Your task to perform on an android device: Open Youtube and go to the subscriptions tab Image 0: 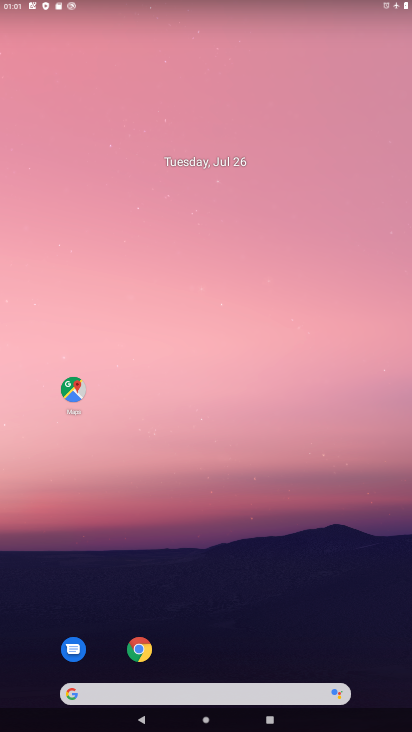
Step 0: drag from (188, 692) to (187, 105)
Your task to perform on an android device: Open Youtube and go to the subscriptions tab Image 1: 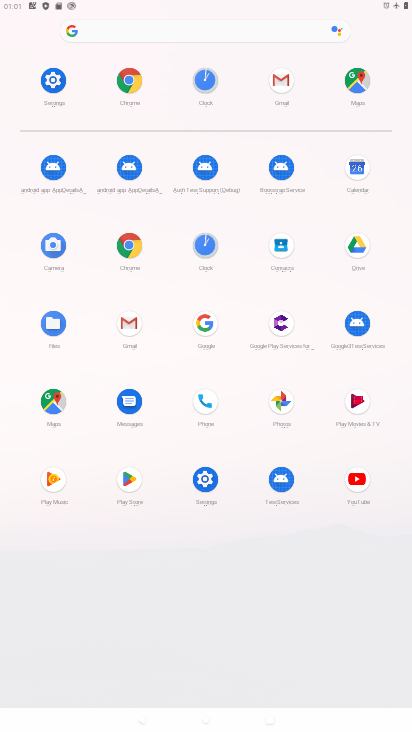
Step 1: click (351, 482)
Your task to perform on an android device: Open Youtube and go to the subscriptions tab Image 2: 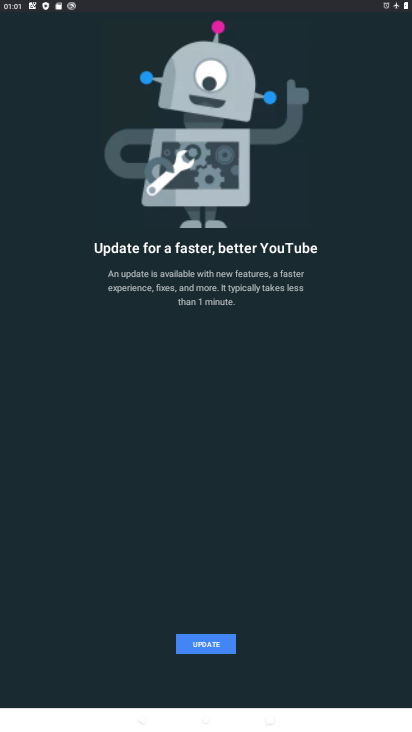
Step 2: task complete